Your task to perform on an android device: all mails in gmail Image 0: 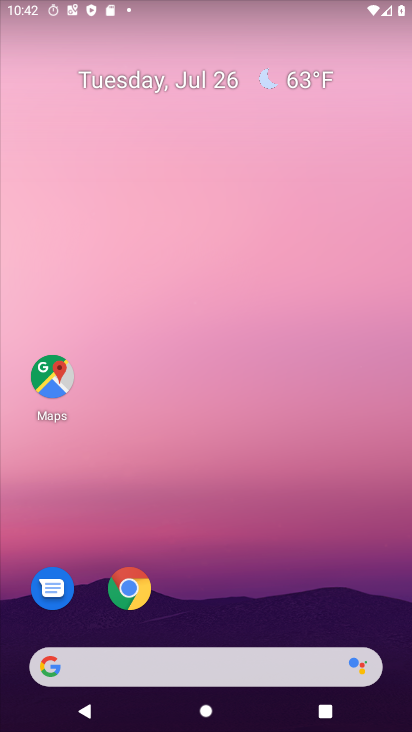
Step 0: drag from (212, 473) to (143, 4)
Your task to perform on an android device: all mails in gmail Image 1: 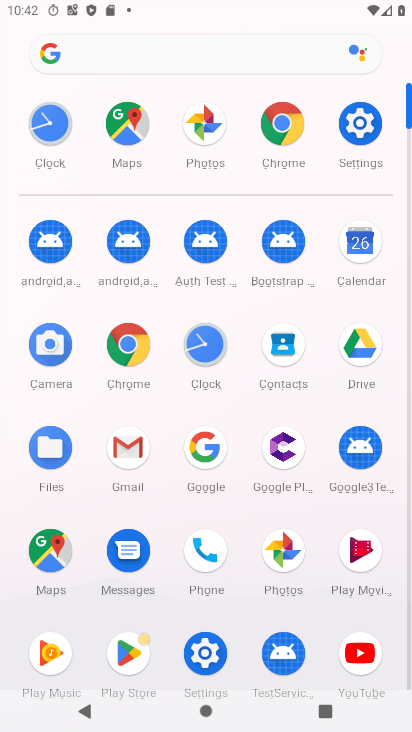
Step 1: click (136, 443)
Your task to perform on an android device: all mails in gmail Image 2: 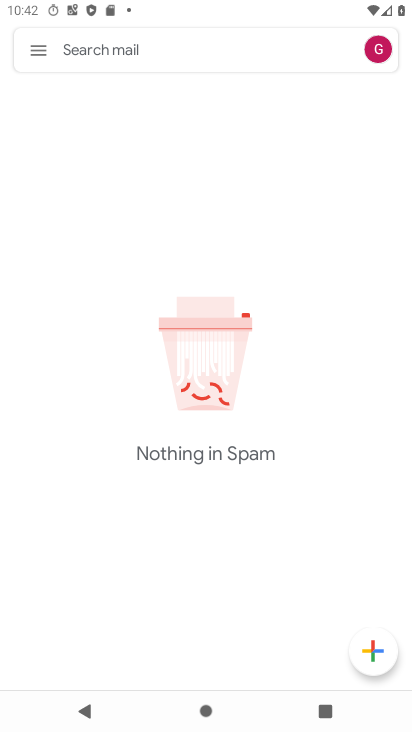
Step 2: click (39, 63)
Your task to perform on an android device: all mails in gmail Image 3: 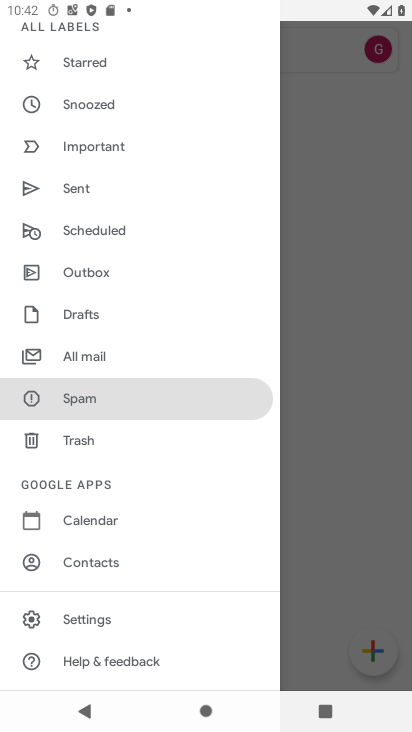
Step 3: click (90, 363)
Your task to perform on an android device: all mails in gmail Image 4: 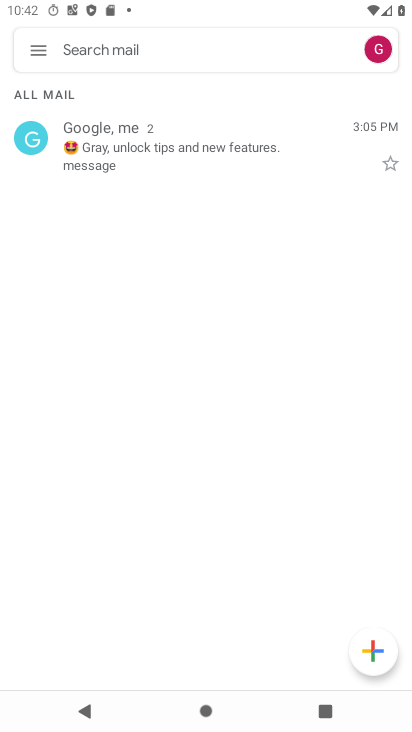
Step 4: task complete